Your task to perform on an android device: When is my next appointment? Image 0: 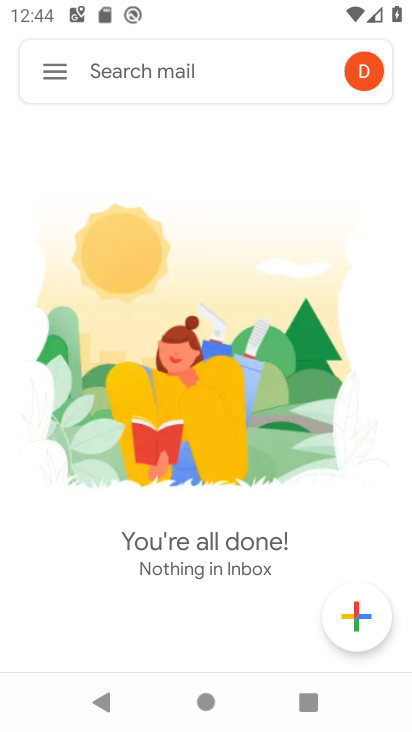
Step 0: press home button
Your task to perform on an android device: When is my next appointment? Image 1: 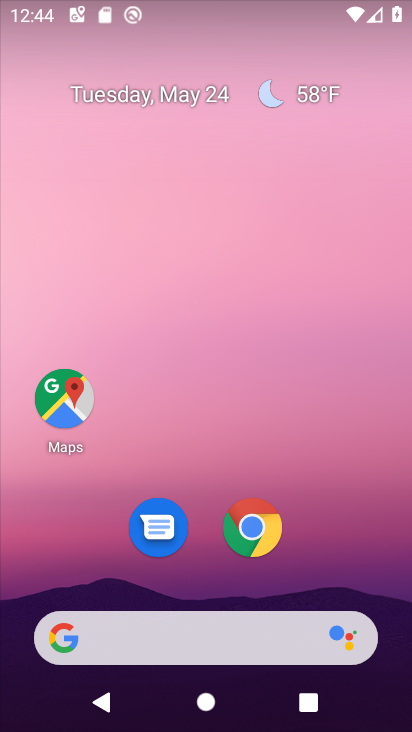
Step 1: drag from (392, 603) to (250, 35)
Your task to perform on an android device: When is my next appointment? Image 2: 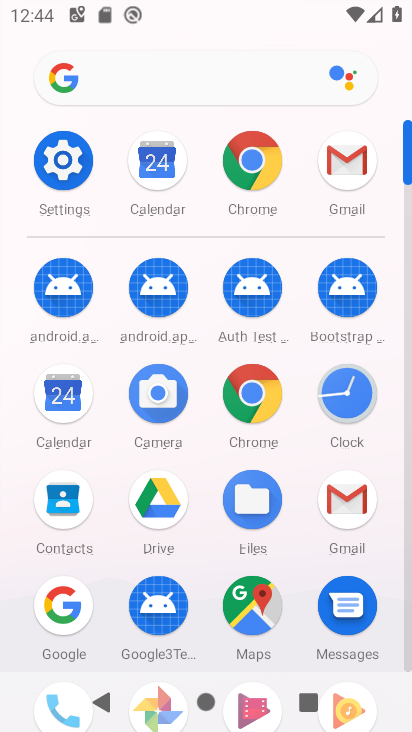
Step 2: click (155, 172)
Your task to perform on an android device: When is my next appointment? Image 3: 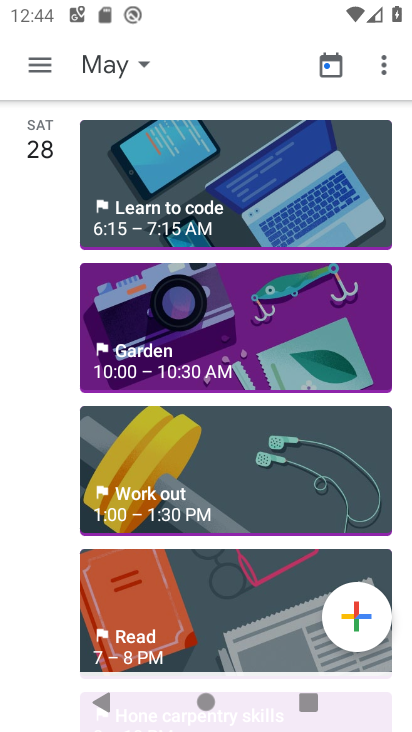
Step 3: click (100, 74)
Your task to perform on an android device: When is my next appointment? Image 4: 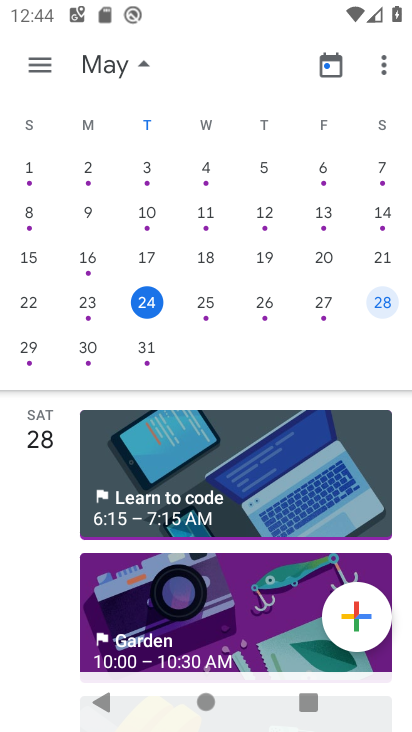
Step 4: click (49, 72)
Your task to perform on an android device: When is my next appointment? Image 5: 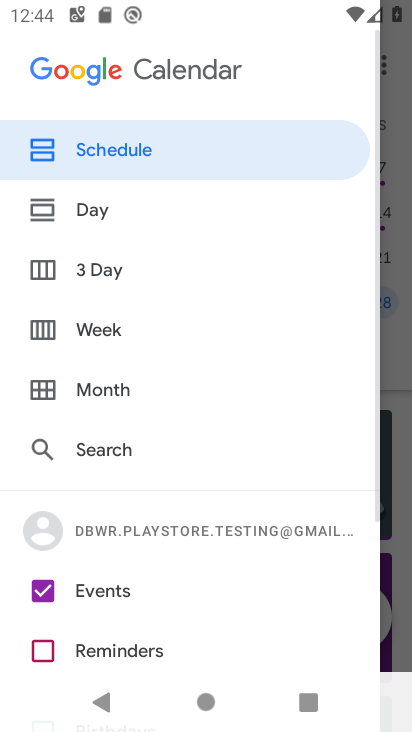
Step 5: click (104, 134)
Your task to perform on an android device: When is my next appointment? Image 6: 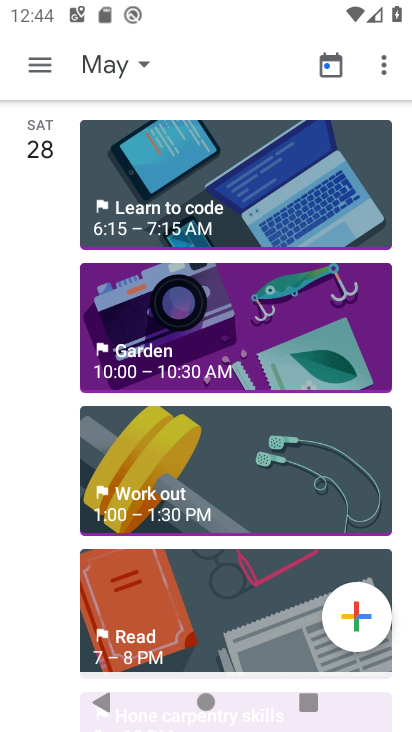
Step 6: click (125, 69)
Your task to perform on an android device: When is my next appointment? Image 7: 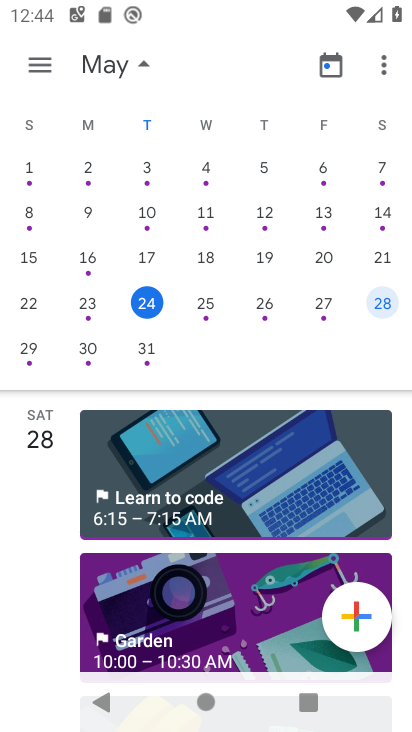
Step 7: click (153, 302)
Your task to perform on an android device: When is my next appointment? Image 8: 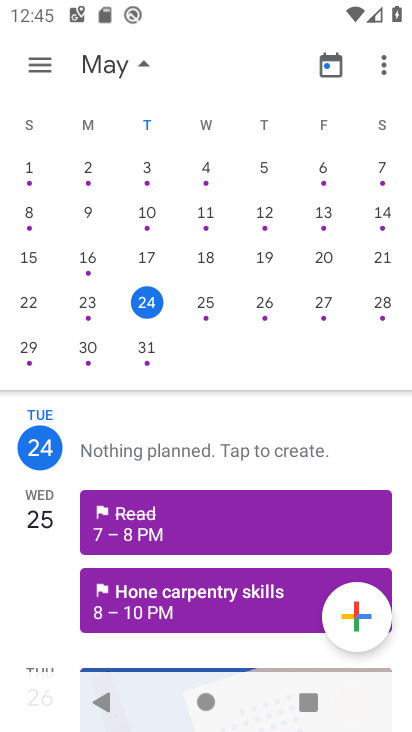
Step 8: task complete